Your task to perform on an android device: toggle notification dots Image 0: 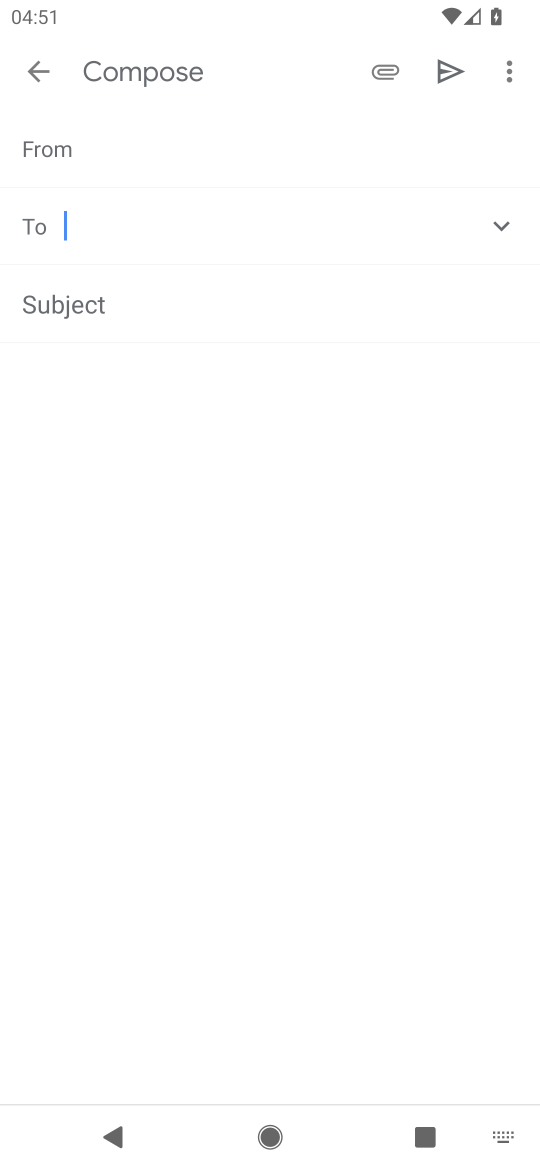
Step 0: press home button
Your task to perform on an android device: toggle notification dots Image 1: 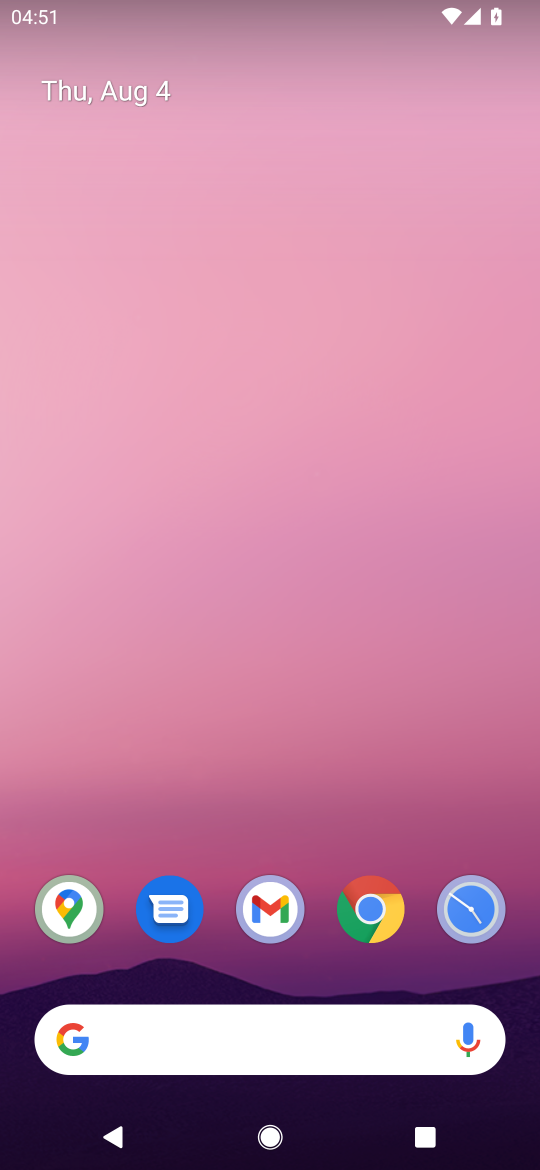
Step 1: drag from (297, 770) to (534, 222)
Your task to perform on an android device: toggle notification dots Image 2: 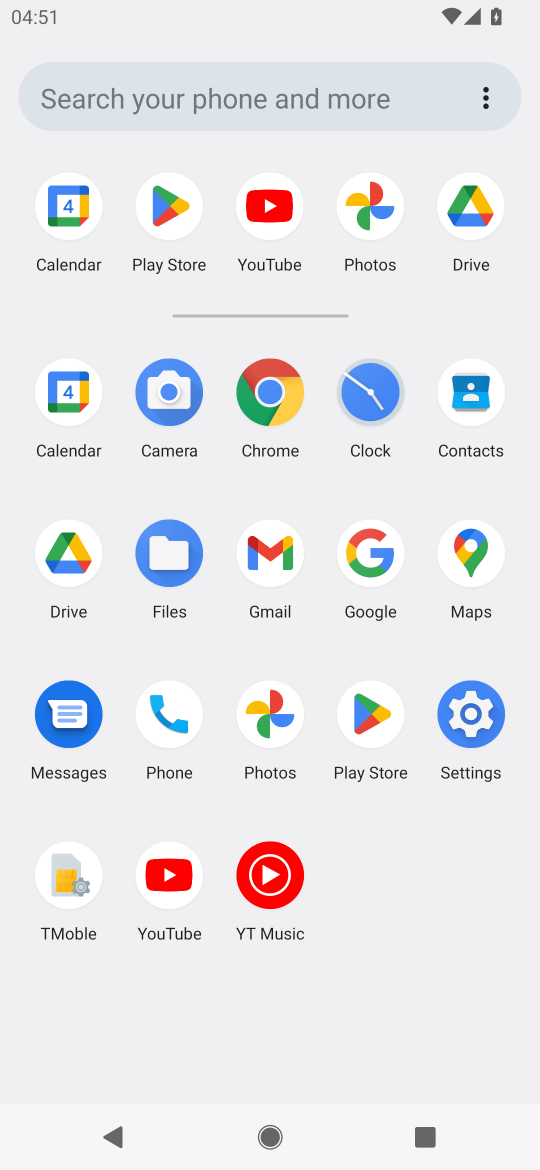
Step 2: click (459, 727)
Your task to perform on an android device: toggle notification dots Image 3: 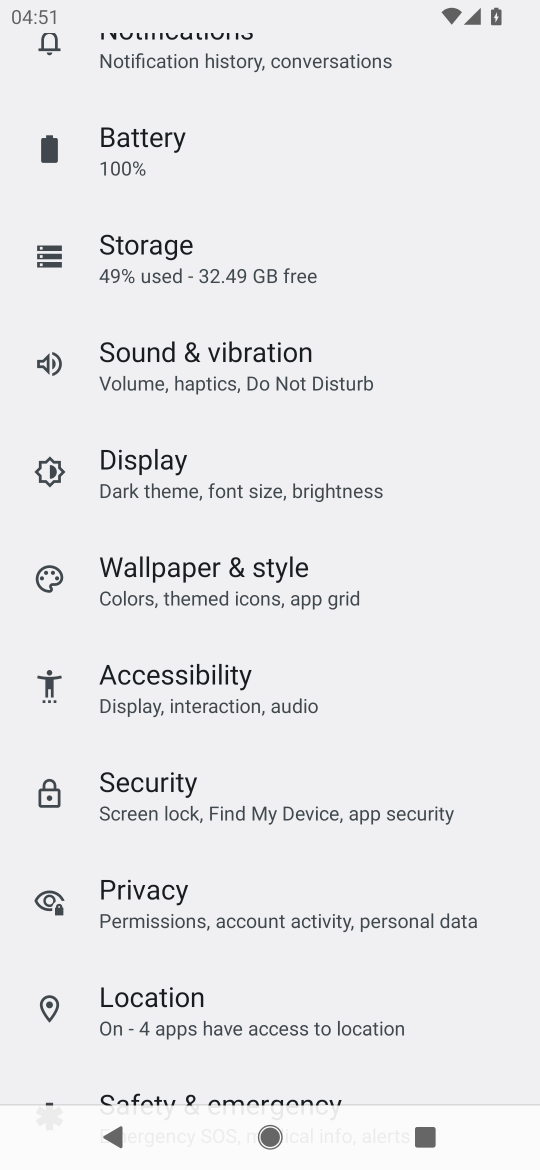
Step 3: drag from (290, 208) to (360, 733)
Your task to perform on an android device: toggle notification dots Image 4: 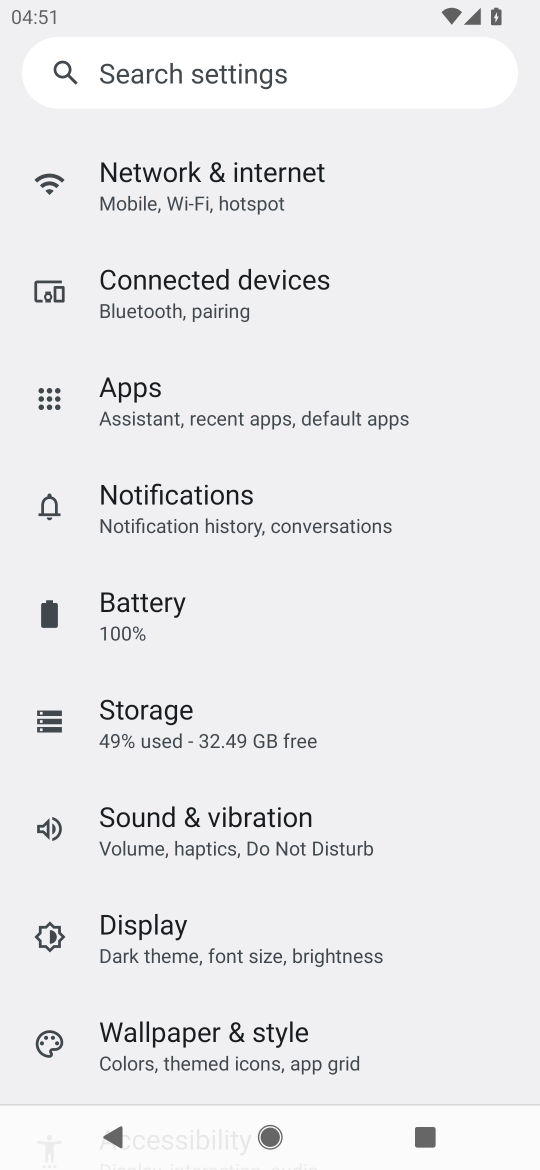
Step 4: click (163, 512)
Your task to perform on an android device: toggle notification dots Image 5: 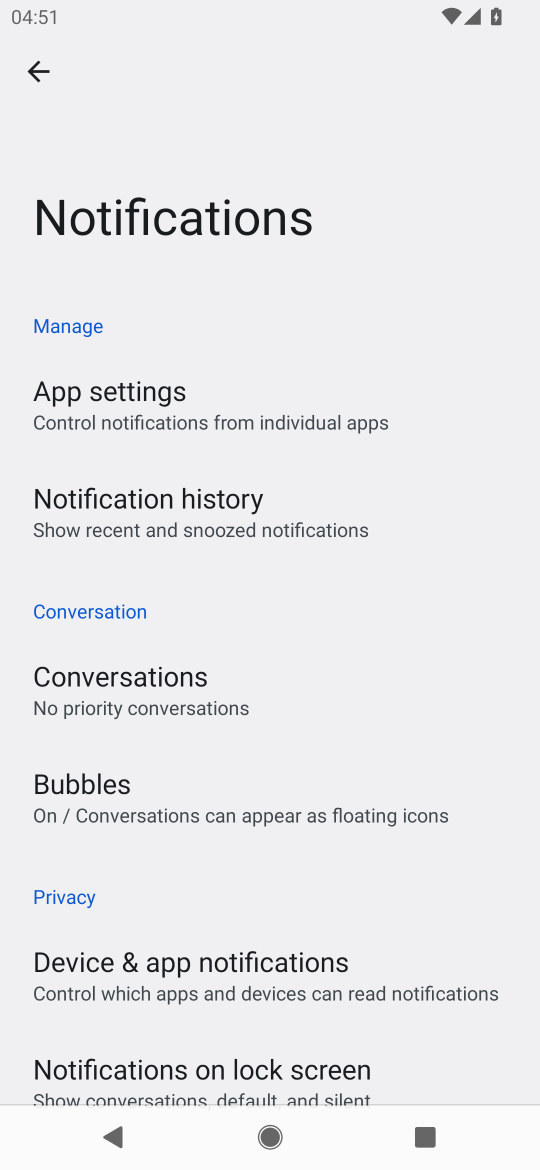
Step 5: drag from (347, 871) to (332, 209)
Your task to perform on an android device: toggle notification dots Image 6: 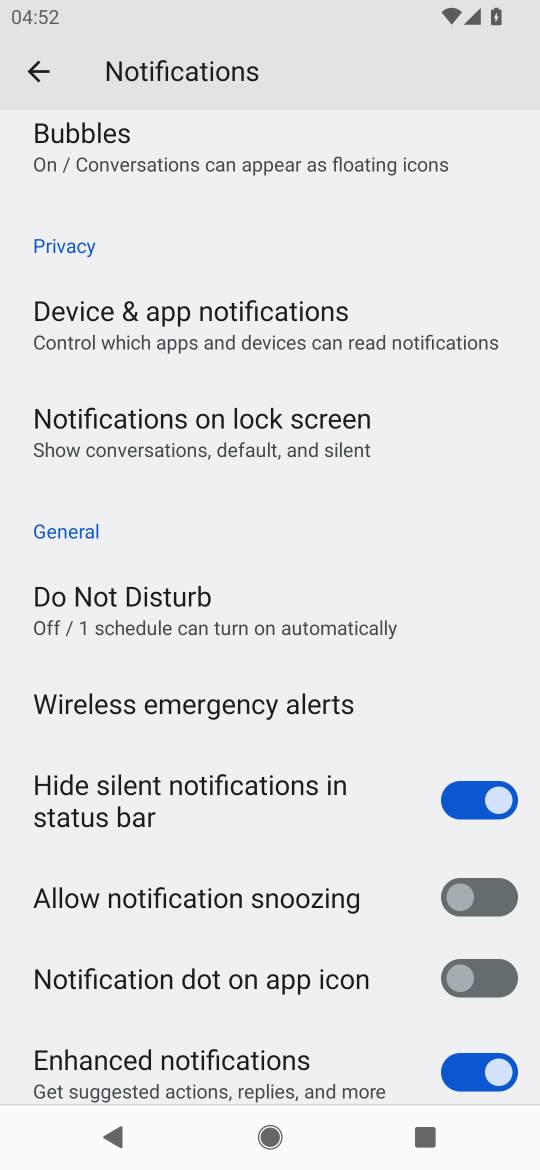
Step 6: drag from (191, 553) to (144, 135)
Your task to perform on an android device: toggle notification dots Image 7: 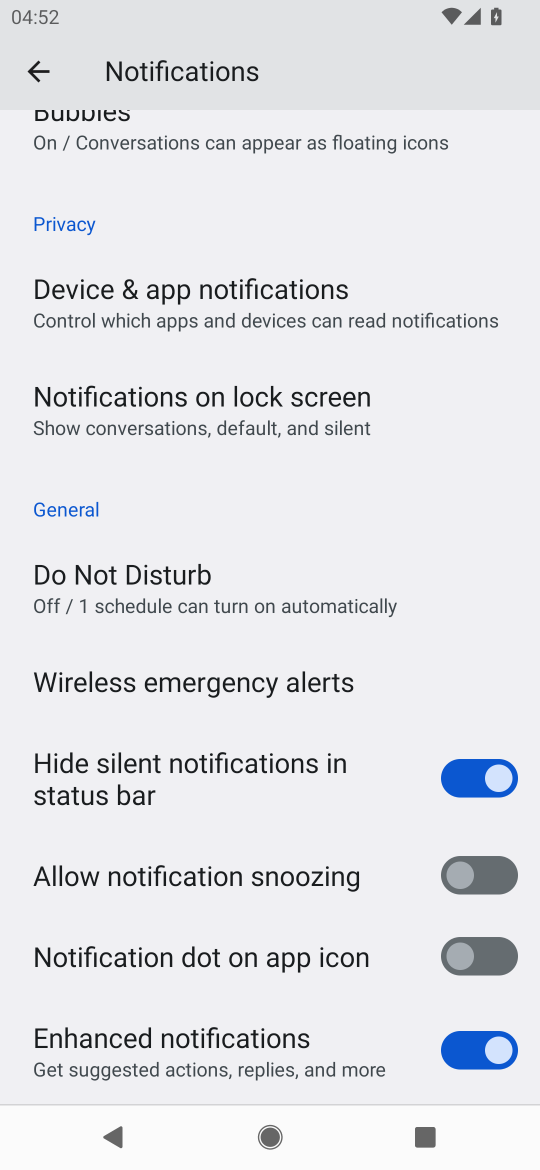
Step 7: drag from (334, 1011) to (363, 335)
Your task to perform on an android device: toggle notification dots Image 8: 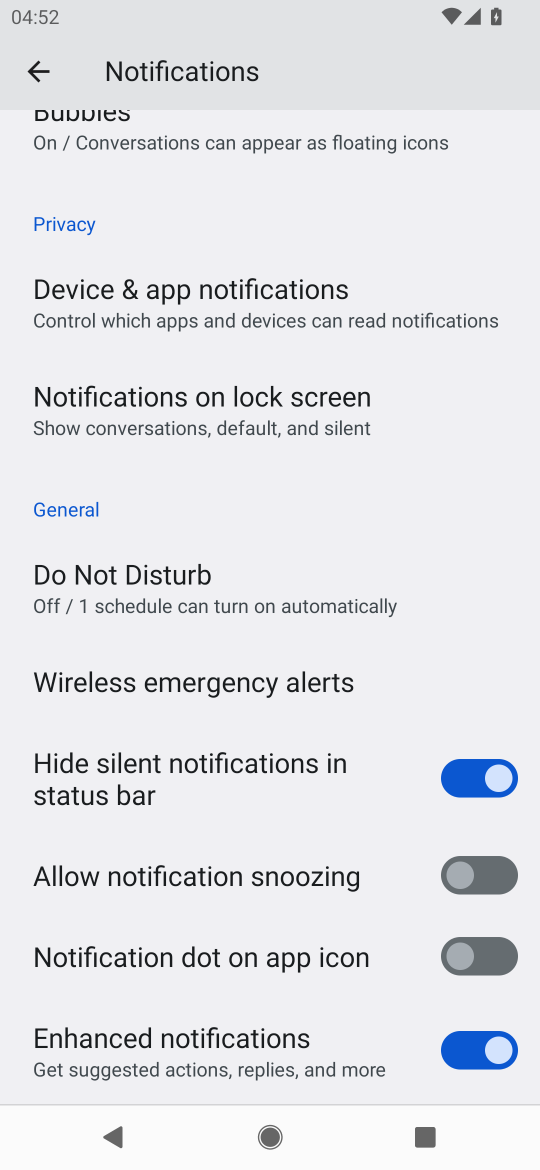
Step 8: drag from (365, 1053) to (345, 390)
Your task to perform on an android device: toggle notification dots Image 9: 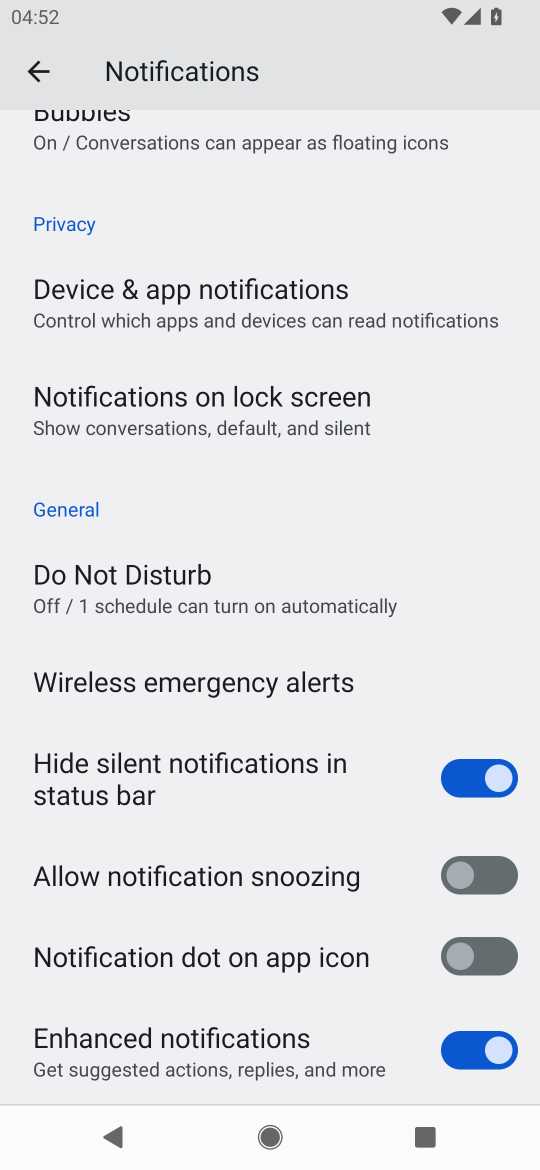
Step 9: drag from (429, 516) to (446, 251)
Your task to perform on an android device: toggle notification dots Image 10: 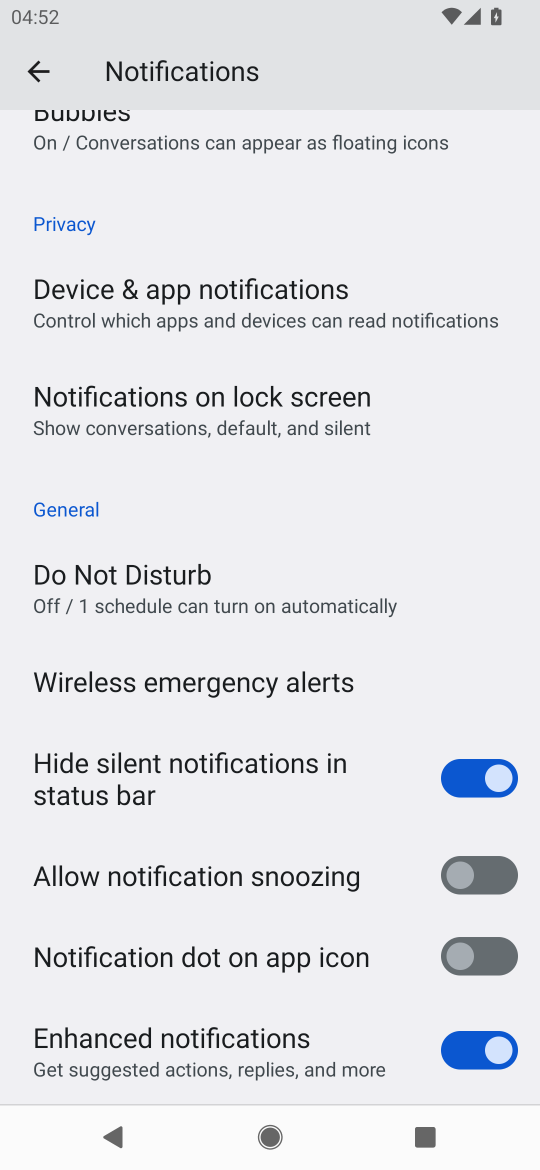
Step 10: drag from (254, 491) to (320, 962)
Your task to perform on an android device: toggle notification dots Image 11: 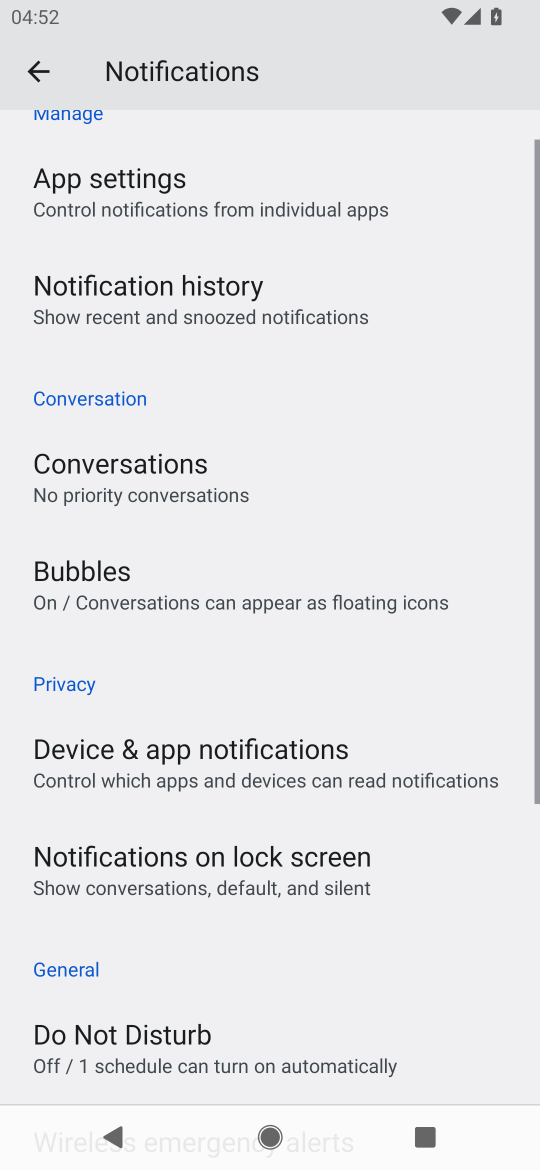
Step 11: click (280, 785)
Your task to perform on an android device: toggle notification dots Image 12: 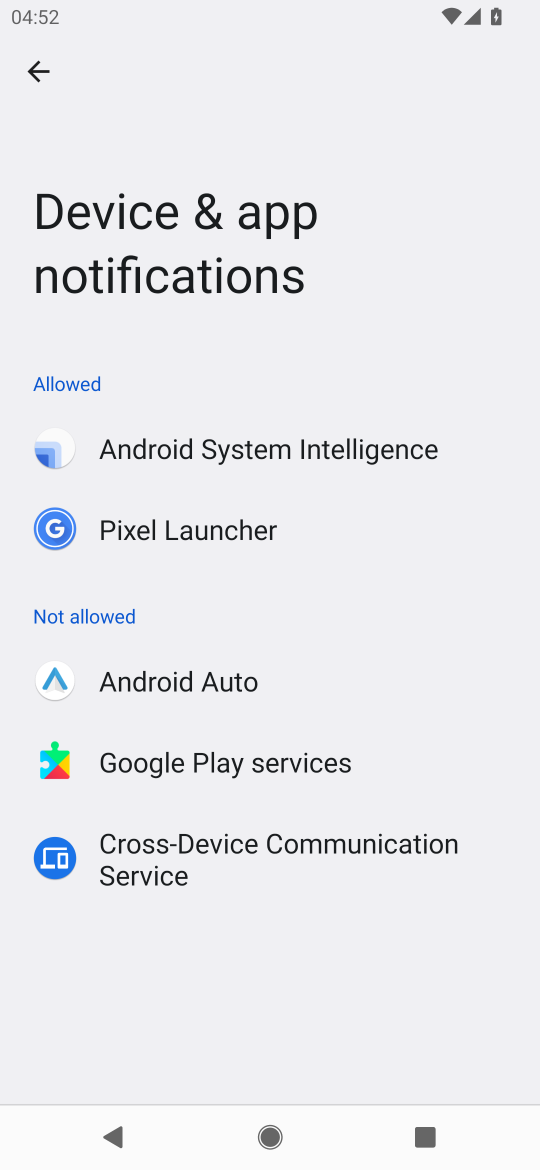
Step 12: drag from (341, 993) to (313, 407)
Your task to perform on an android device: toggle notification dots Image 13: 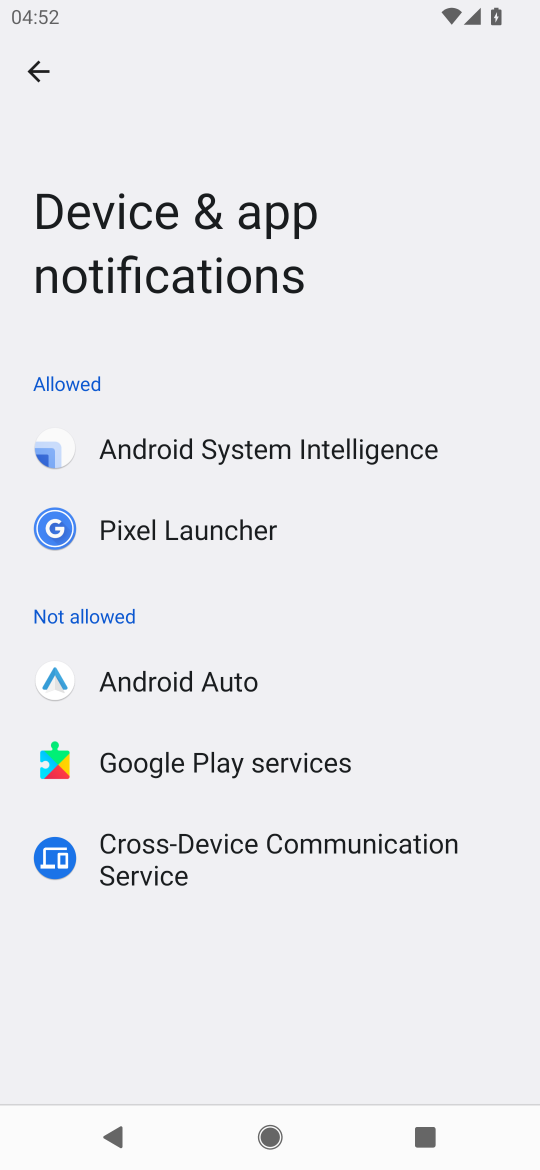
Step 13: click (43, 72)
Your task to perform on an android device: toggle notification dots Image 14: 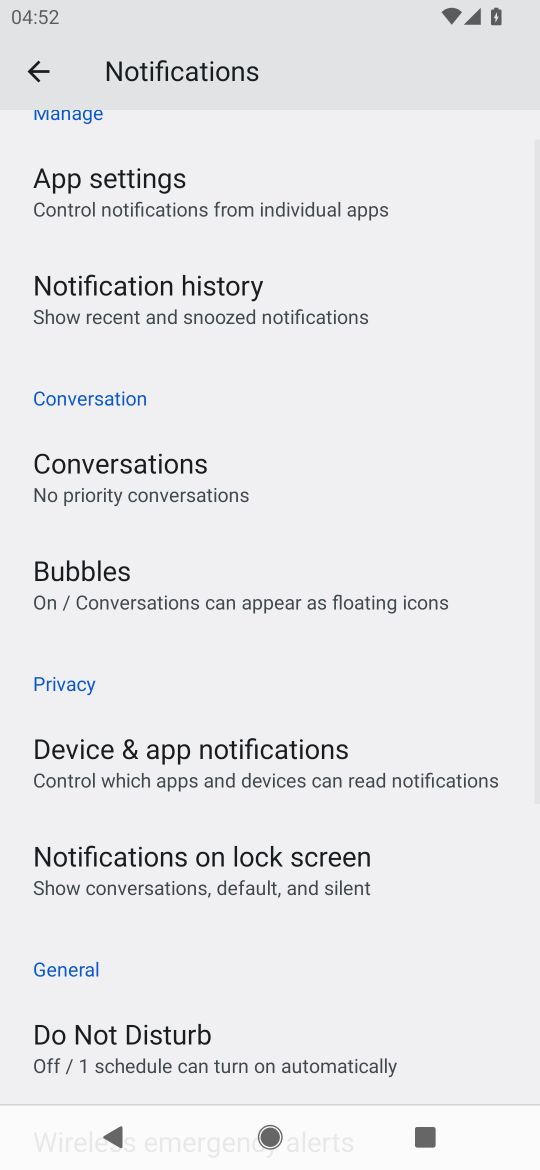
Step 14: drag from (308, 934) to (281, 478)
Your task to perform on an android device: toggle notification dots Image 15: 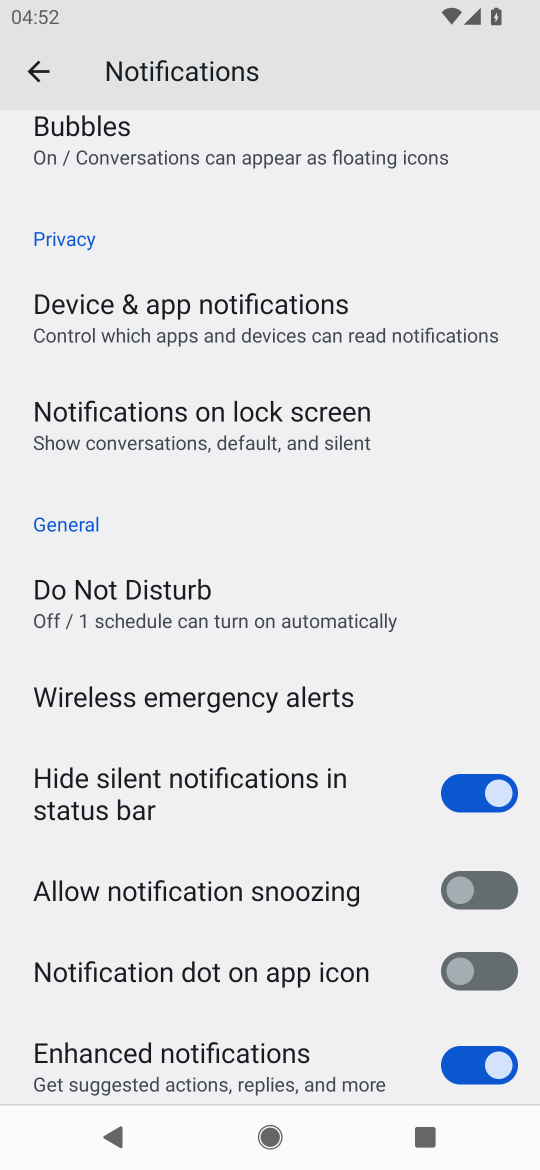
Step 15: click (473, 976)
Your task to perform on an android device: toggle notification dots Image 16: 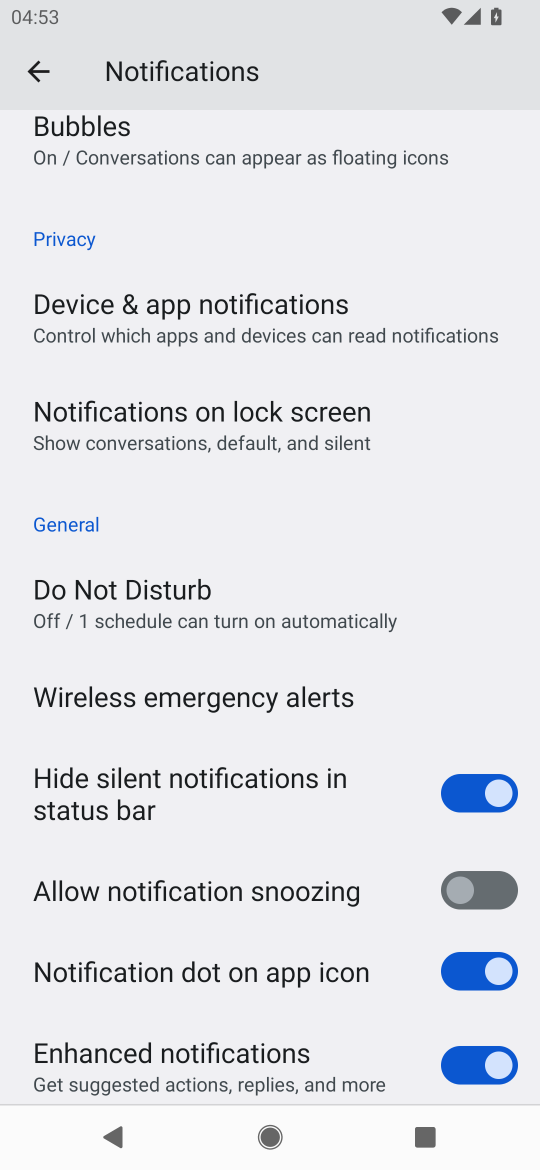
Step 16: task complete